Your task to perform on an android device: snooze an email in the gmail app Image 0: 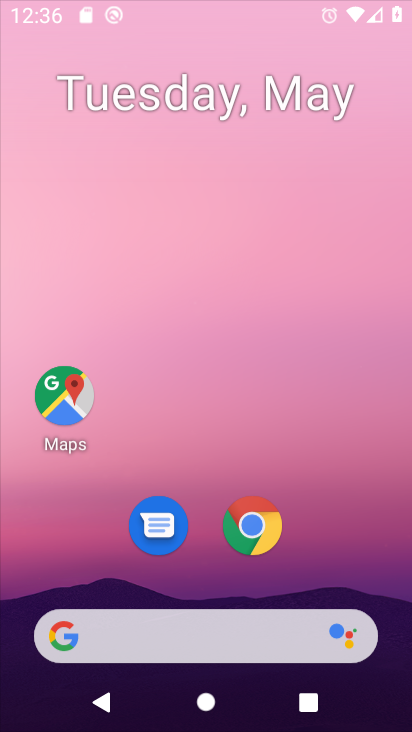
Step 0: click (77, 404)
Your task to perform on an android device: snooze an email in the gmail app Image 1: 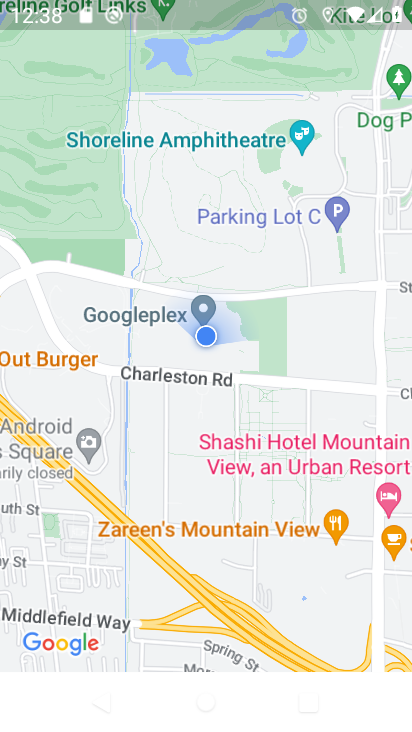
Step 1: press home button
Your task to perform on an android device: snooze an email in the gmail app Image 2: 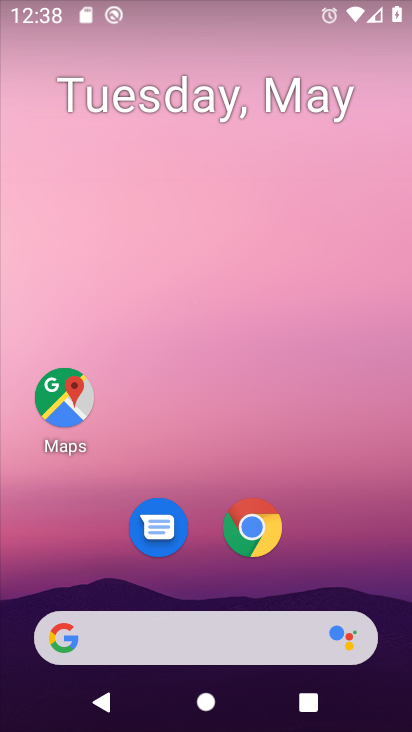
Step 2: drag from (151, 710) to (129, 21)
Your task to perform on an android device: snooze an email in the gmail app Image 3: 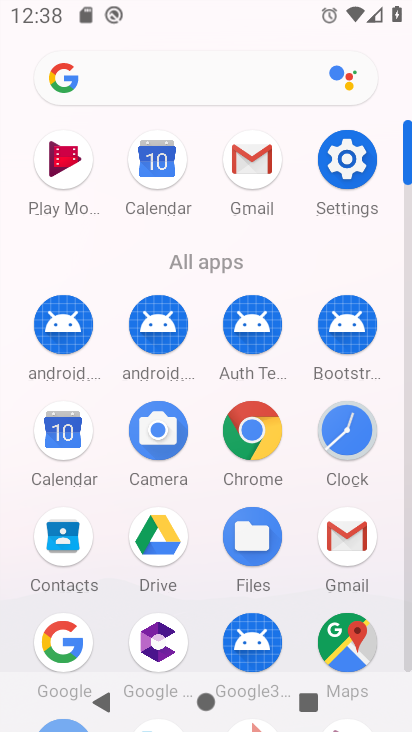
Step 3: click (245, 166)
Your task to perform on an android device: snooze an email in the gmail app Image 4: 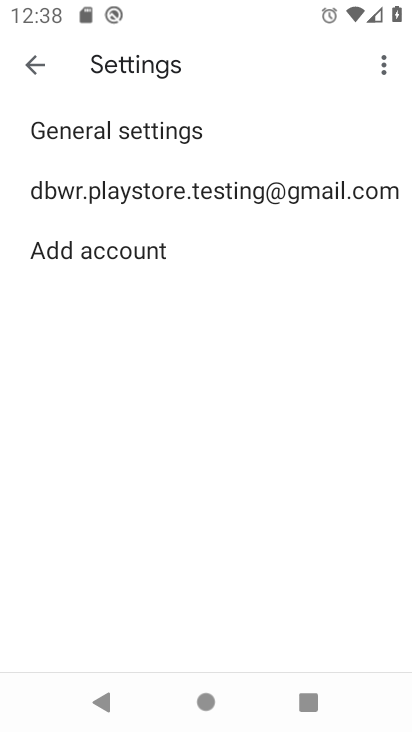
Step 4: click (32, 65)
Your task to perform on an android device: snooze an email in the gmail app Image 5: 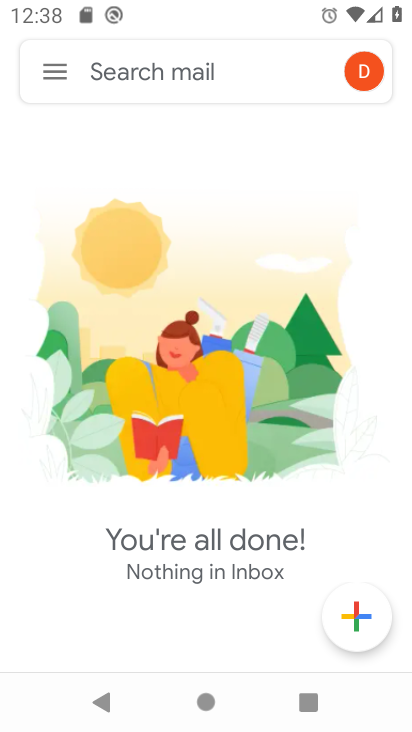
Step 5: task complete